Your task to perform on an android device: Toggle the flashlight Image 0: 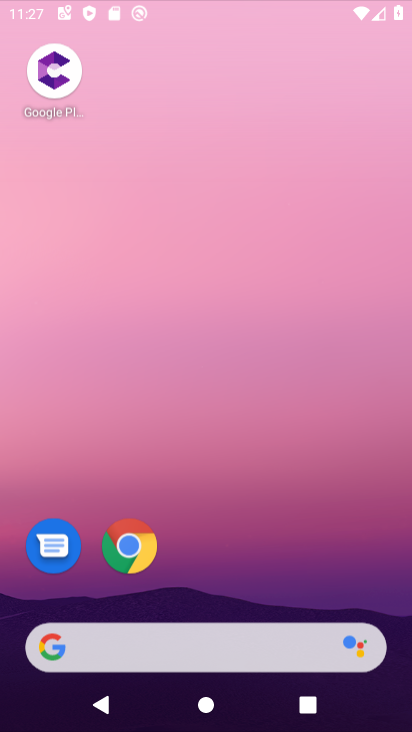
Step 0: drag from (219, 64) to (207, 32)
Your task to perform on an android device: Toggle the flashlight Image 1: 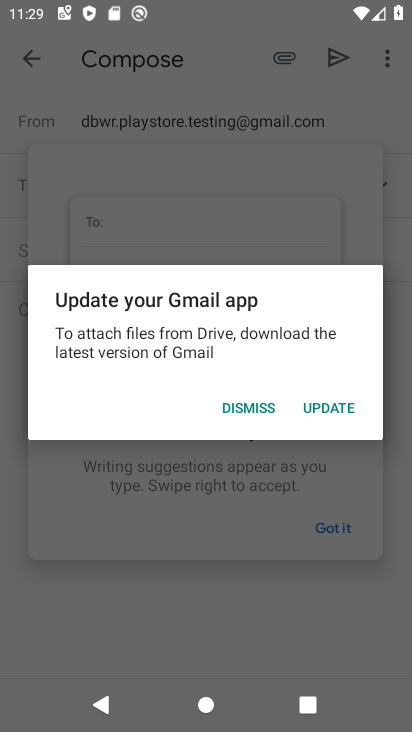
Step 1: press home button
Your task to perform on an android device: Toggle the flashlight Image 2: 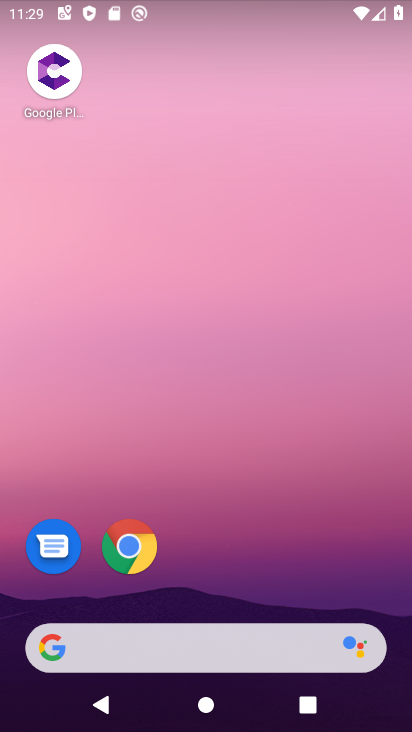
Step 2: drag from (225, 559) to (196, 9)
Your task to perform on an android device: Toggle the flashlight Image 3: 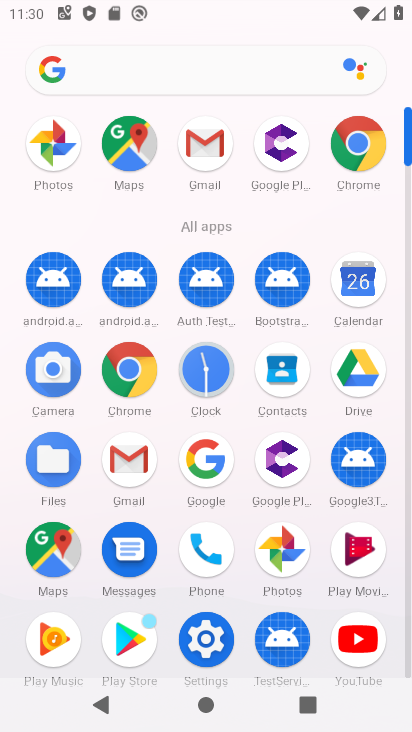
Step 3: click (206, 635)
Your task to perform on an android device: Toggle the flashlight Image 4: 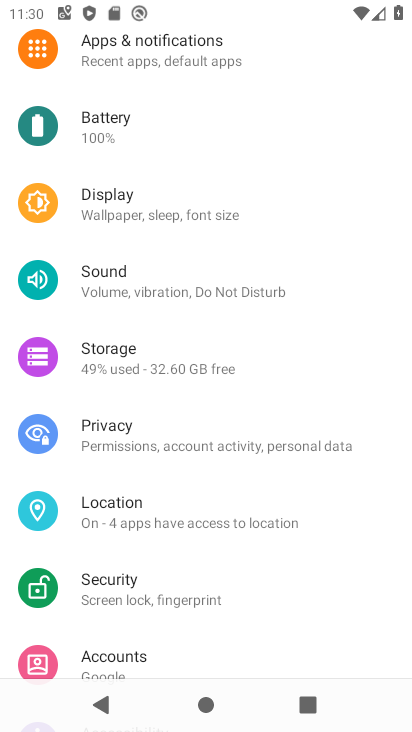
Step 4: click (110, 192)
Your task to perform on an android device: Toggle the flashlight Image 5: 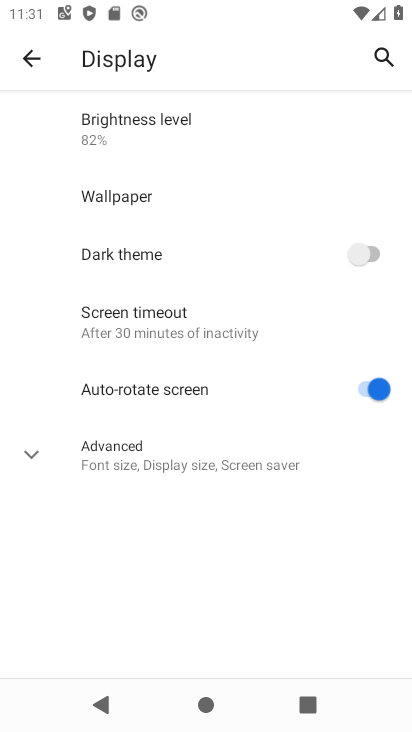
Step 5: task complete